Your task to perform on an android device: What's the weather going to be tomorrow? Image 0: 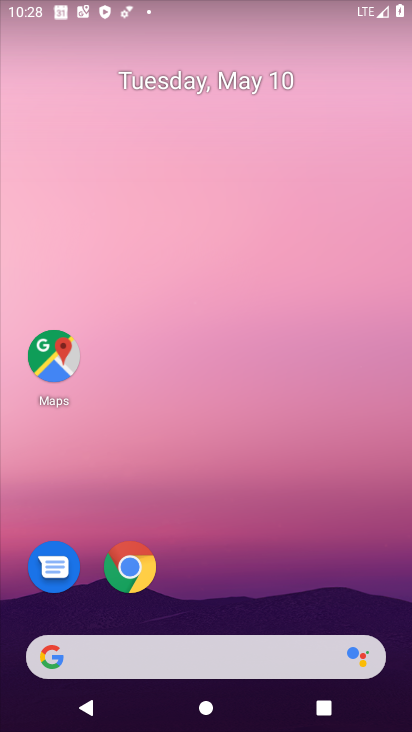
Step 0: click (82, 653)
Your task to perform on an android device: What's the weather going to be tomorrow? Image 1: 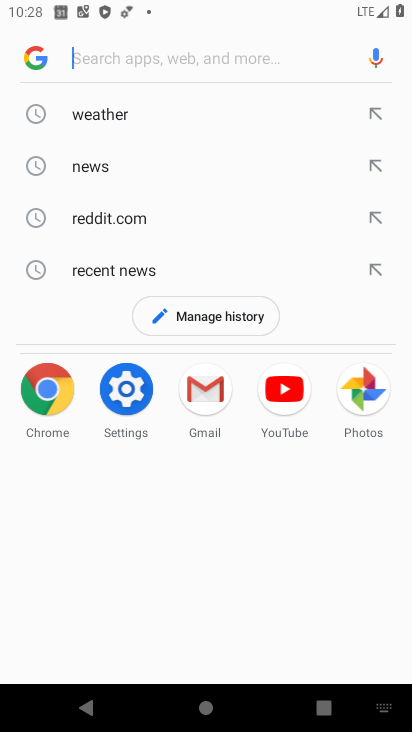
Step 1: click (141, 109)
Your task to perform on an android device: What's the weather going to be tomorrow? Image 2: 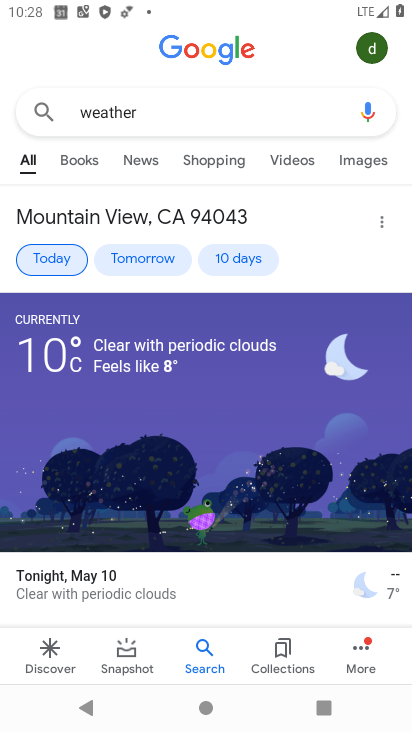
Step 2: click (108, 261)
Your task to perform on an android device: What's the weather going to be tomorrow? Image 3: 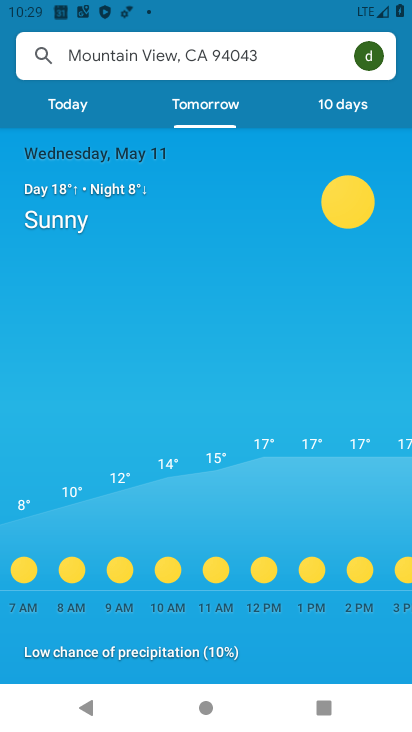
Step 3: task complete